Your task to perform on an android device: Clear the shopping cart on target.com. Add "usb-a" to the cart on target.com, then select checkout. Image 0: 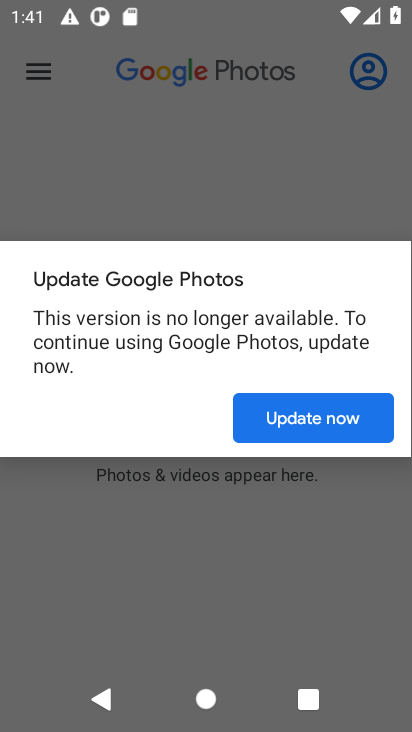
Step 0: press home button
Your task to perform on an android device: Clear the shopping cart on target.com. Add "usb-a" to the cart on target.com, then select checkout. Image 1: 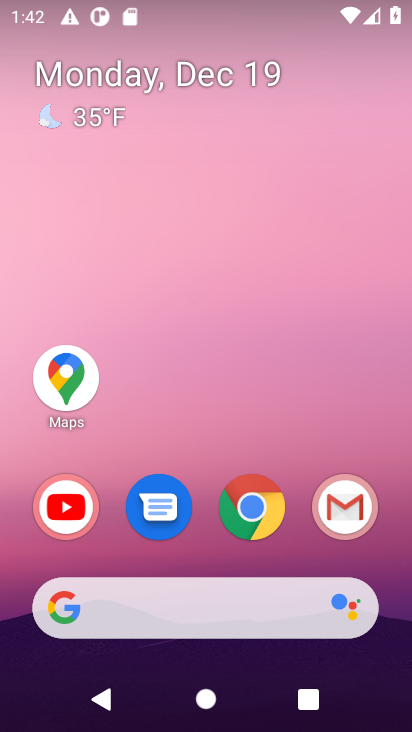
Step 1: click (255, 512)
Your task to perform on an android device: Clear the shopping cart on target.com. Add "usb-a" to the cart on target.com, then select checkout. Image 2: 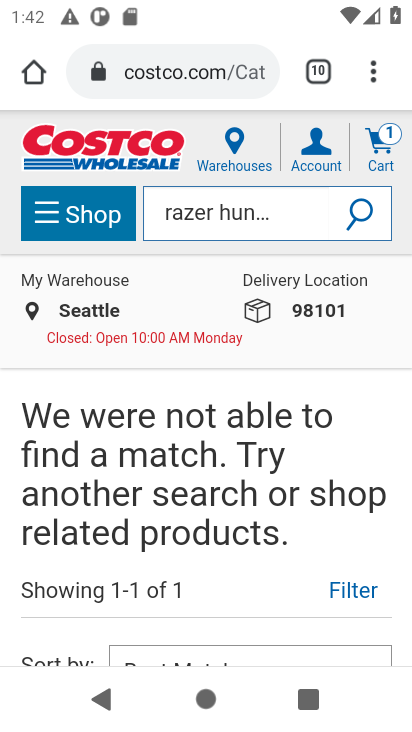
Step 2: click (163, 72)
Your task to perform on an android device: Clear the shopping cart on target.com. Add "usb-a" to the cart on target.com, then select checkout. Image 3: 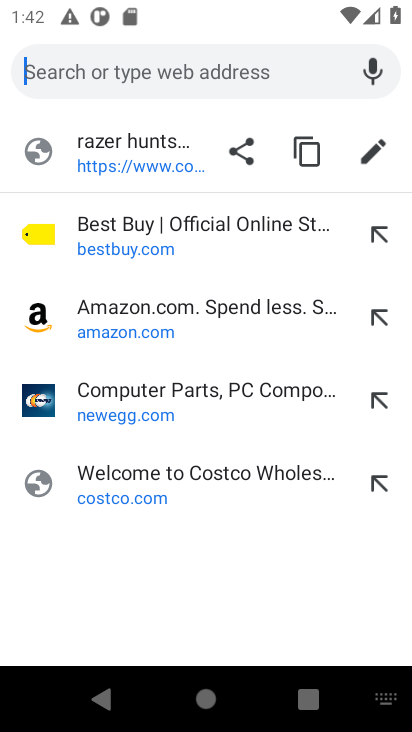
Step 3: type "target.com"
Your task to perform on an android device: Clear the shopping cart on target.com. Add "usb-a" to the cart on target.com, then select checkout. Image 4: 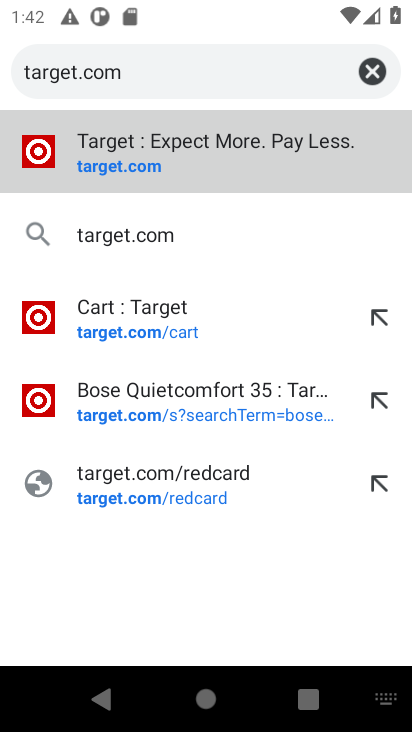
Step 4: click (116, 166)
Your task to perform on an android device: Clear the shopping cart on target.com. Add "usb-a" to the cart on target.com, then select checkout. Image 5: 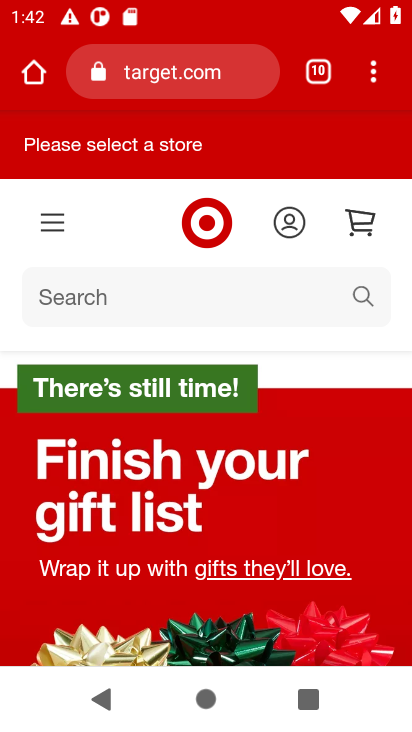
Step 5: click (363, 220)
Your task to perform on an android device: Clear the shopping cart on target.com. Add "usb-a" to the cart on target.com, then select checkout. Image 6: 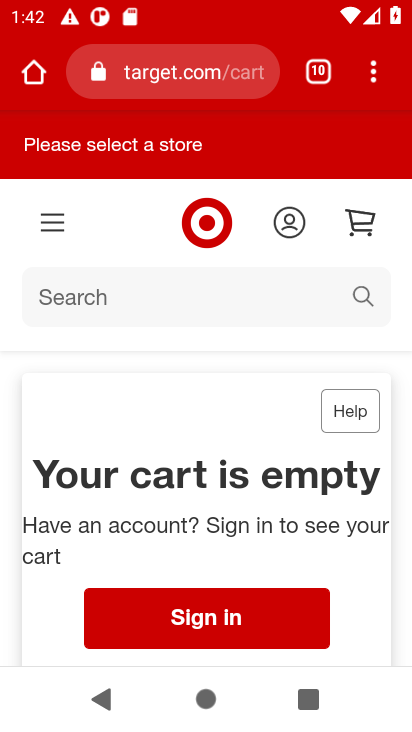
Step 6: click (49, 295)
Your task to perform on an android device: Clear the shopping cart on target.com. Add "usb-a" to the cart on target.com, then select checkout. Image 7: 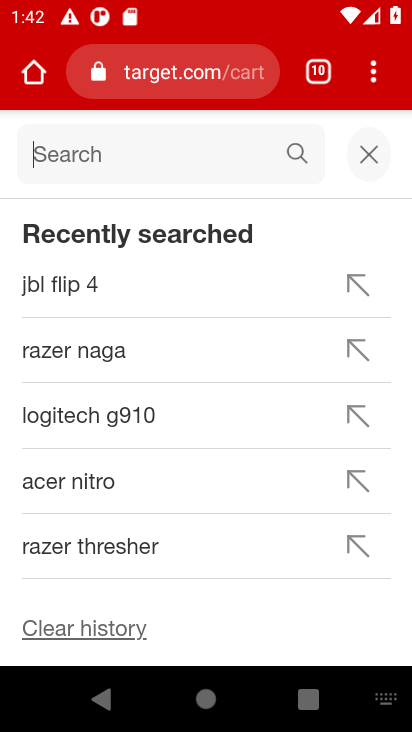
Step 7: type "usb-a"
Your task to perform on an android device: Clear the shopping cart on target.com. Add "usb-a" to the cart on target.com, then select checkout. Image 8: 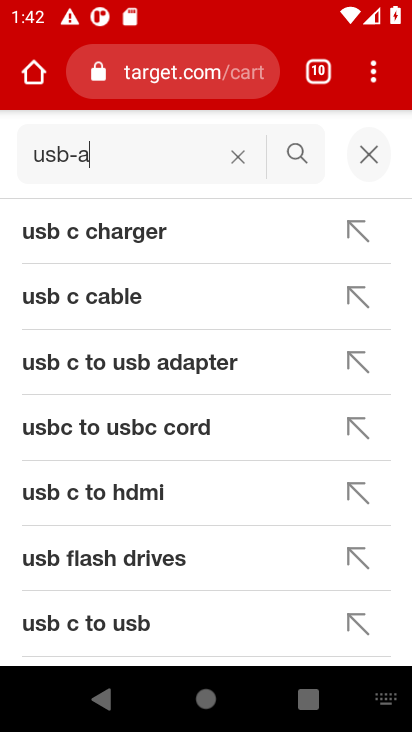
Step 8: click (297, 145)
Your task to perform on an android device: Clear the shopping cart on target.com. Add "usb-a" to the cart on target.com, then select checkout. Image 9: 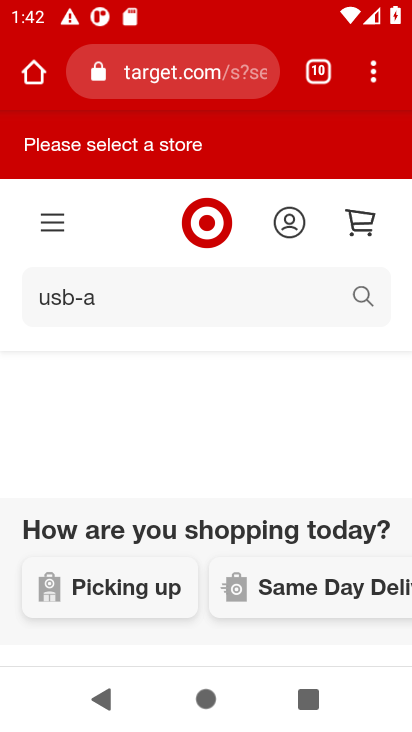
Step 9: drag from (171, 490) to (145, 169)
Your task to perform on an android device: Clear the shopping cart on target.com. Add "usb-a" to the cart on target.com, then select checkout. Image 10: 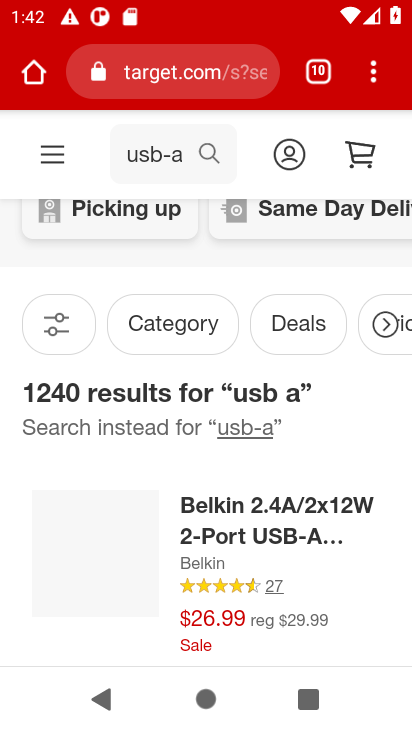
Step 10: drag from (152, 429) to (146, 174)
Your task to perform on an android device: Clear the shopping cart on target.com. Add "usb-a" to the cart on target.com, then select checkout. Image 11: 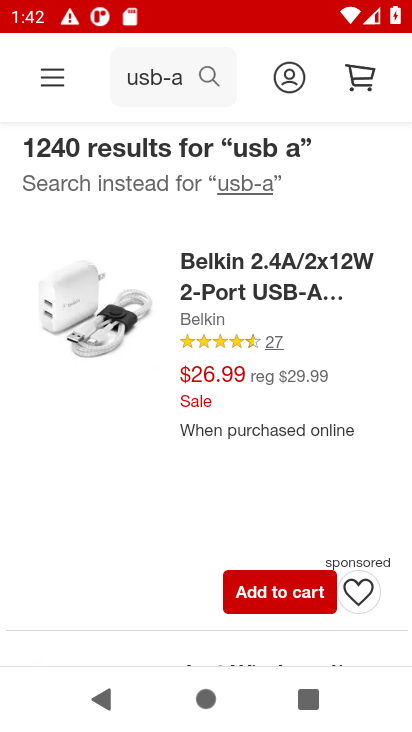
Step 11: click (222, 317)
Your task to perform on an android device: Clear the shopping cart on target.com. Add "usb-a" to the cart on target.com, then select checkout. Image 12: 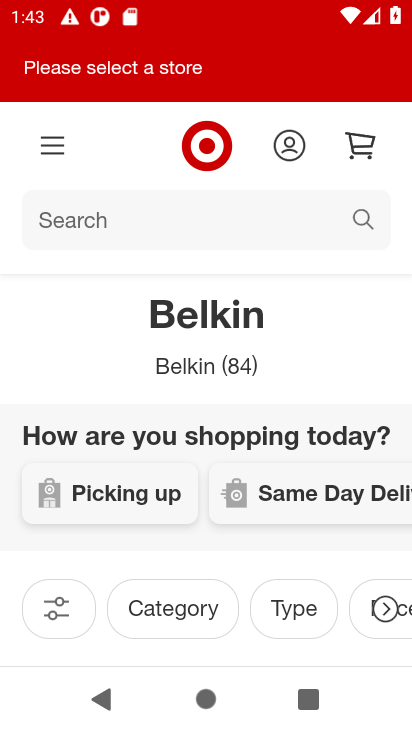
Step 12: press back button
Your task to perform on an android device: Clear the shopping cart on target.com. Add "usb-a" to the cart on target.com, then select checkout. Image 13: 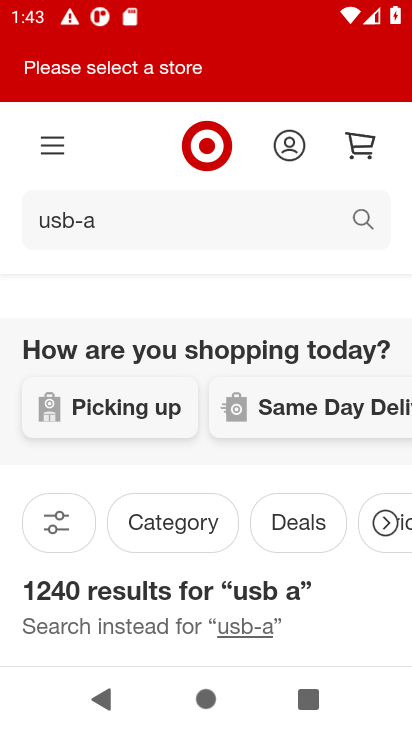
Step 13: drag from (287, 448) to (283, 116)
Your task to perform on an android device: Clear the shopping cart on target.com. Add "usb-a" to the cart on target.com, then select checkout. Image 14: 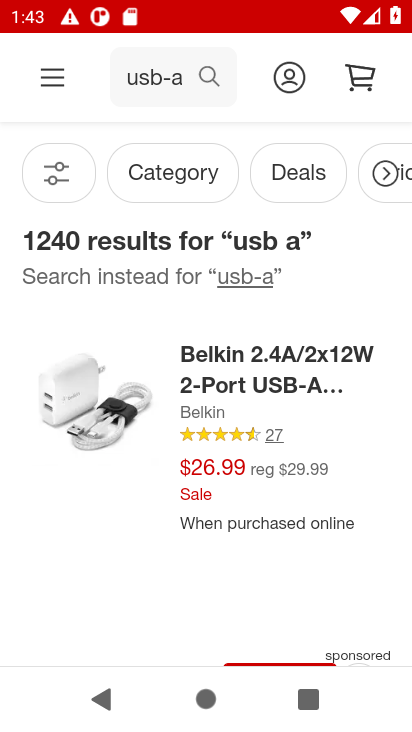
Step 14: click (297, 356)
Your task to perform on an android device: Clear the shopping cart on target.com. Add "usb-a" to the cart on target.com, then select checkout. Image 15: 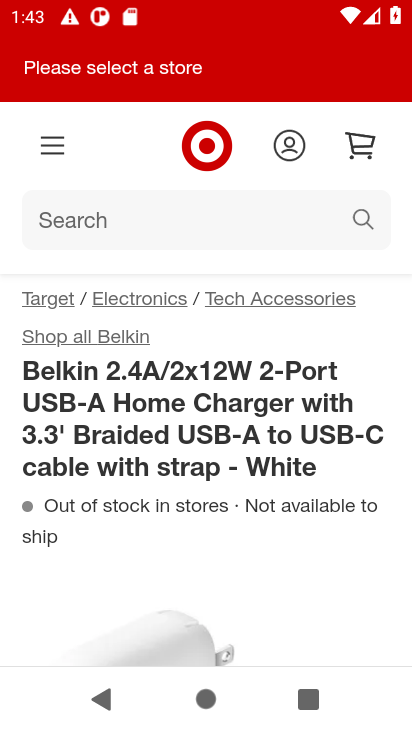
Step 15: drag from (179, 456) to (154, 139)
Your task to perform on an android device: Clear the shopping cart on target.com. Add "usb-a" to the cart on target.com, then select checkout. Image 16: 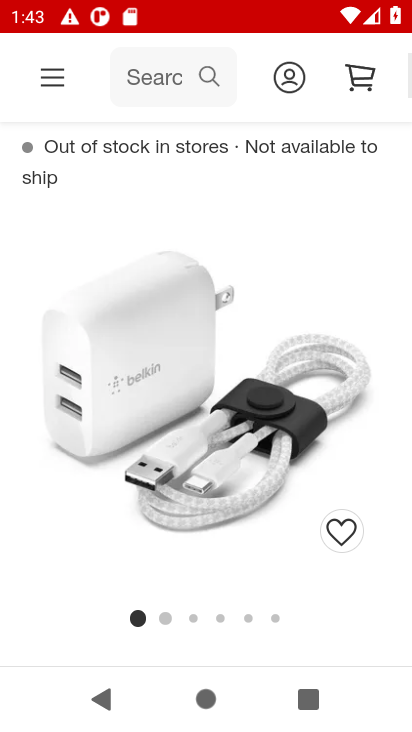
Step 16: drag from (218, 481) to (187, 98)
Your task to perform on an android device: Clear the shopping cart on target.com. Add "usb-a" to the cart on target.com, then select checkout. Image 17: 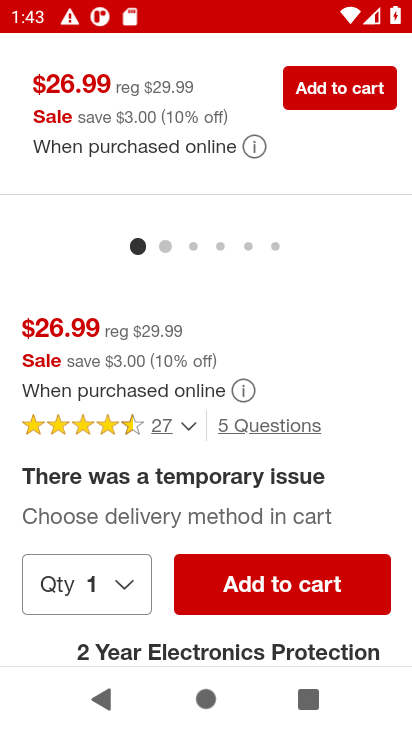
Step 17: click (284, 596)
Your task to perform on an android device: Clear the shopping cart on target.com. Add "usb-a" to the cart on target.com, then select checkout. Image 18: 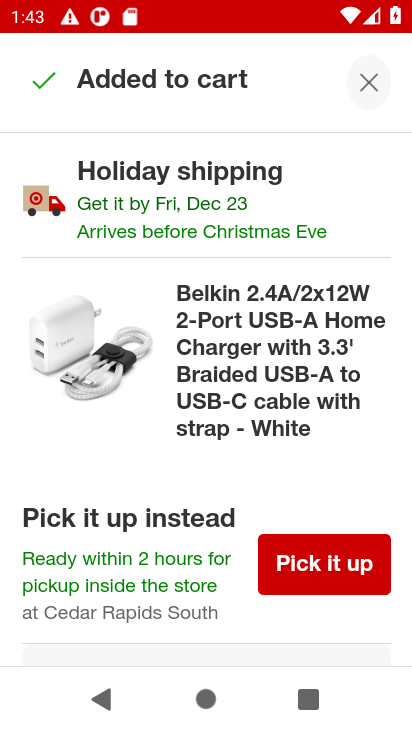
Step 18: drag from (243, 455) to (219, 210)
Your task to perform on an android device: Clear the shopping cart on target.com. Add "usb-a" to the cart on target.com, then select checkout. Image 19: 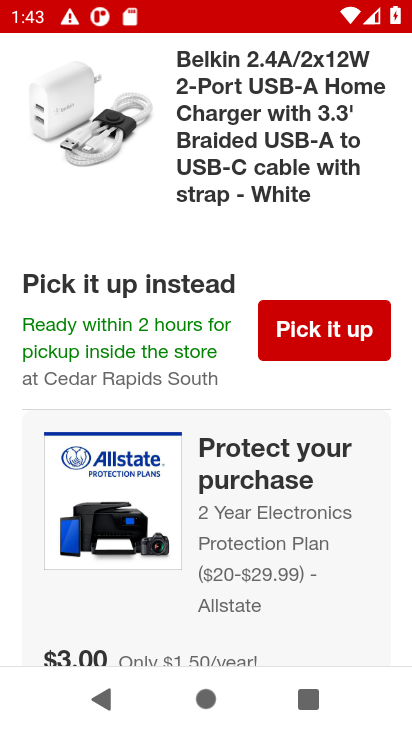
Step 19: drag from (195, 344) to (222, 652)
Your task to perform on an android device: Clear the shopping cart on target.com. Add "usb-a" to the cart on target.com, then select checkout. Image 20: 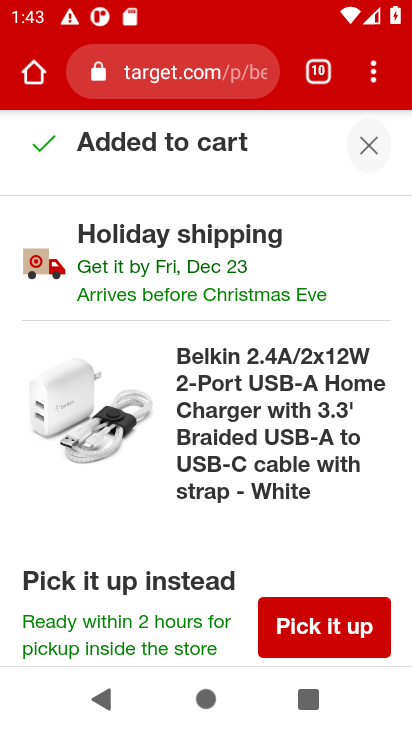
Step 20: click (370, 149)
Your task to perform on an android device: Clear the shopping cart on target.com. Add "usb-a" to the cart on target.com, then select checkout. Image 21: 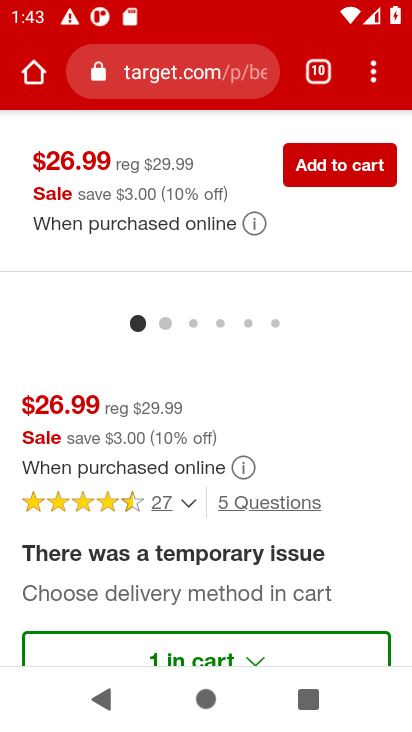
Step 21: drag from (218, 487) to (221, 228)
Your task to perform on an android device: Clear the shopping cart on target.com. Add "usb-a" to the cart on target.com, then select checkout. Image 22: 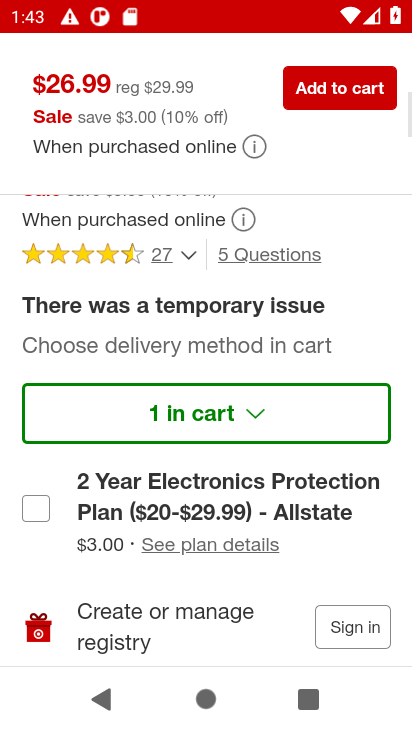
Step 22: drag from (221, 227) to (217, 706)
Your task to perform on an android device: Clear the shopping cart on target.com. Add "usb-a" to the cart on target.com, then select checkout. Image 23: 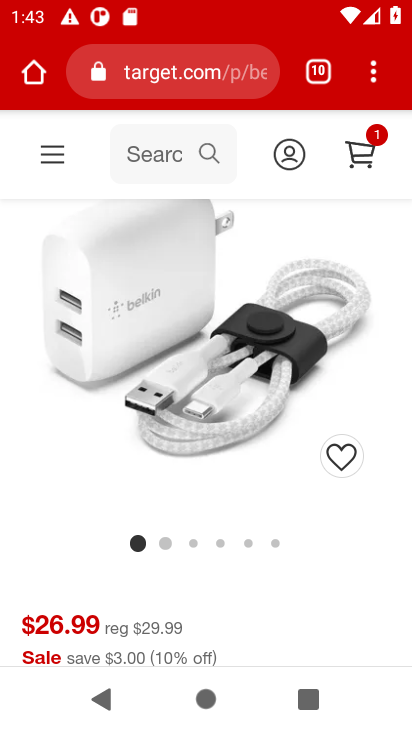
Step 23: click (354, 159)
Your task to perform on an android device: Clear the shopping cart on target.com. Add "usb-a" to the cart on target.com, then select checkout. Image 24: 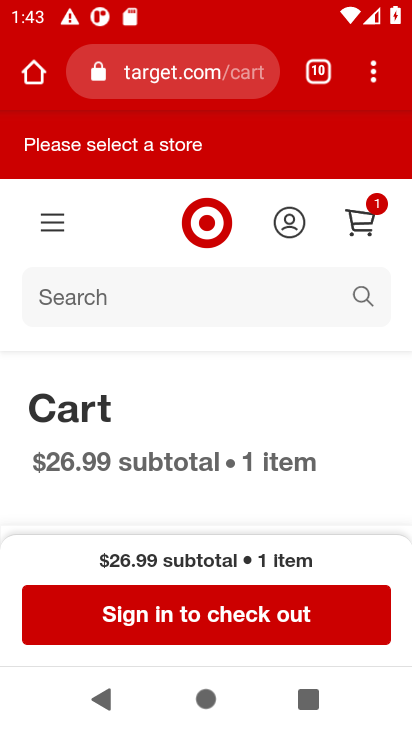
Step 24: click (181, 634)
Your task to perform on an android device: Clear the shopping cart on target.com. Add "usb-a" to the cart on target.com, then select checkout. Image 25: 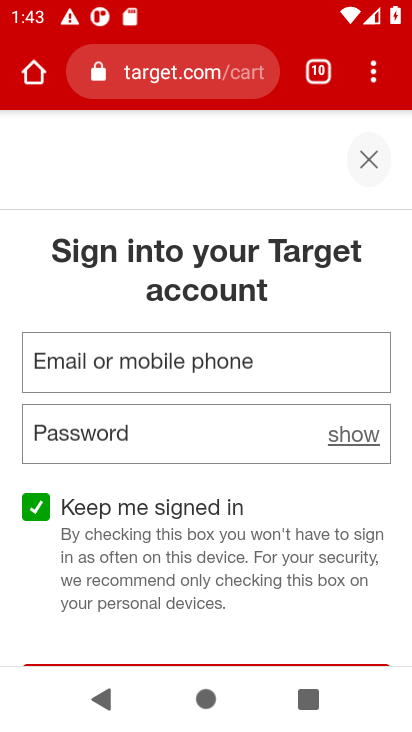
Step 25: task complete